Your task to perform on an android device: Go to Yahoo.com Image 0: 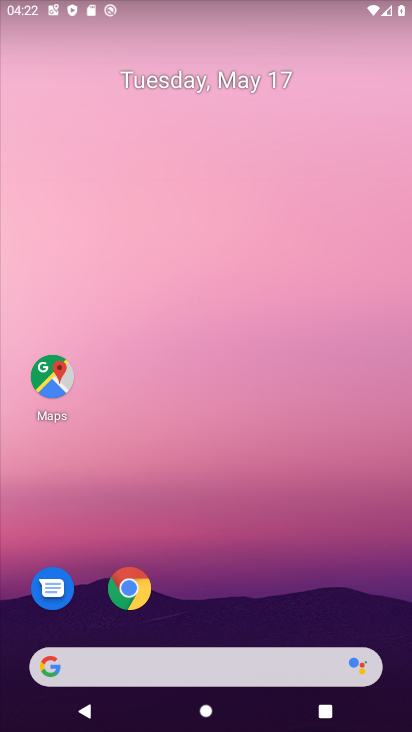
Step 0: click (127, 587)
Your task to perform on an android device: Go to Yahoo.com Image 1: 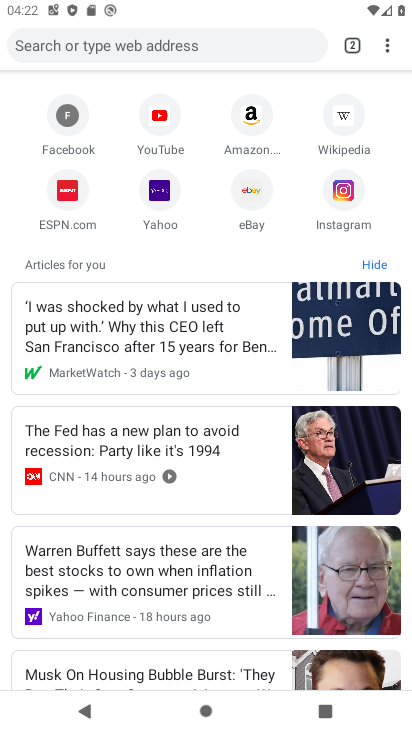
Step 1: click (243, 52)
Your task to perform on an android device: Go to Yahoo.com Image 2: 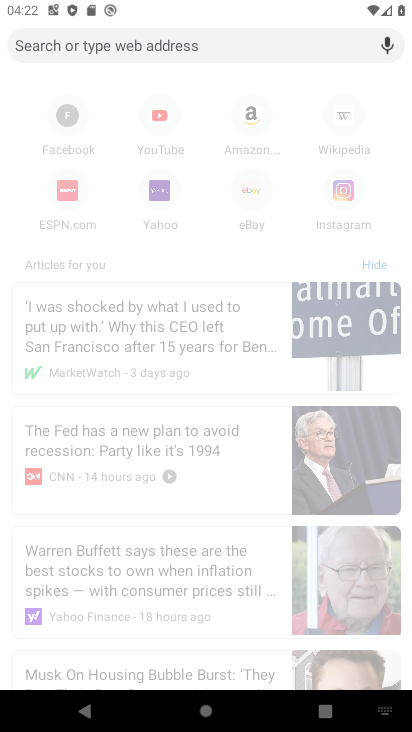
Step 2: type "Yahoo.com"
Your task to perform on an android device: Go to Yahoo.com Image 3: 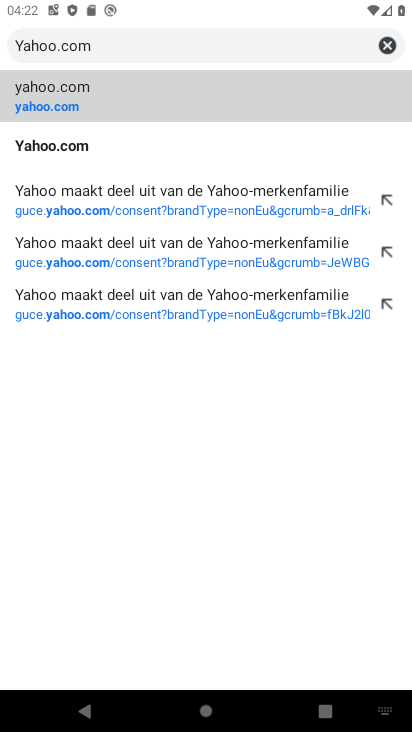
Step 3: click (44, 151)
Your task to perform on an android device: Go to Yahoo.com Image 4: 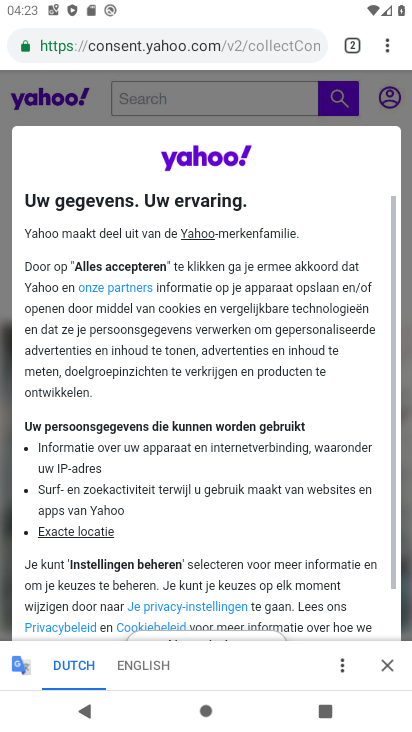
Step 4: task complete